Your task to perform on an android device: change the clock display to analog Image 0: 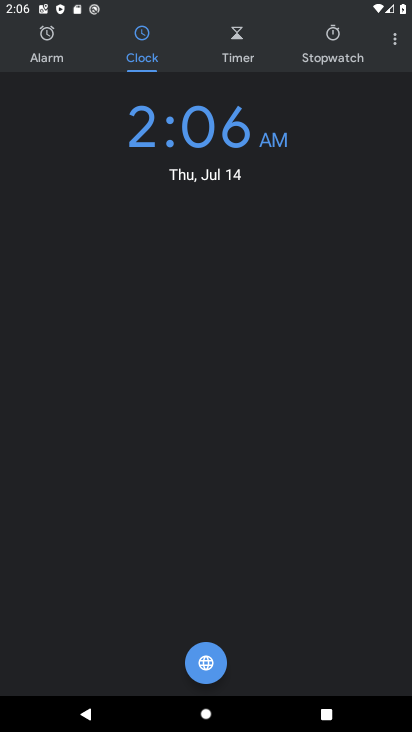
Step 0: press home button
Your task to perform on an android device: change the clock display to analog Image 1: 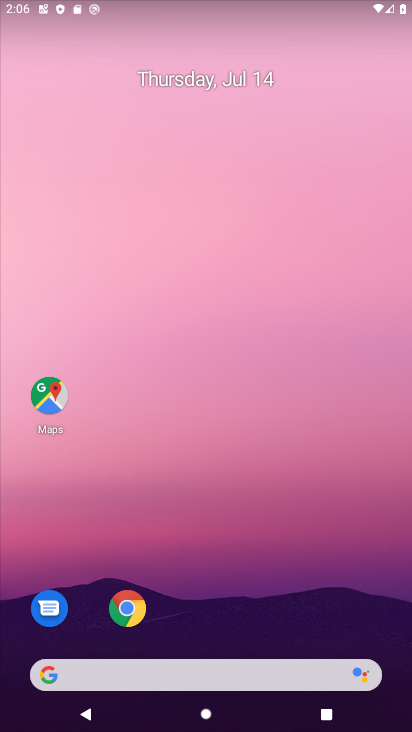
Step 1: drag from (208, 644) to (251, 218)
Your task to perform on an android device: change the clock display to analog Image 2: 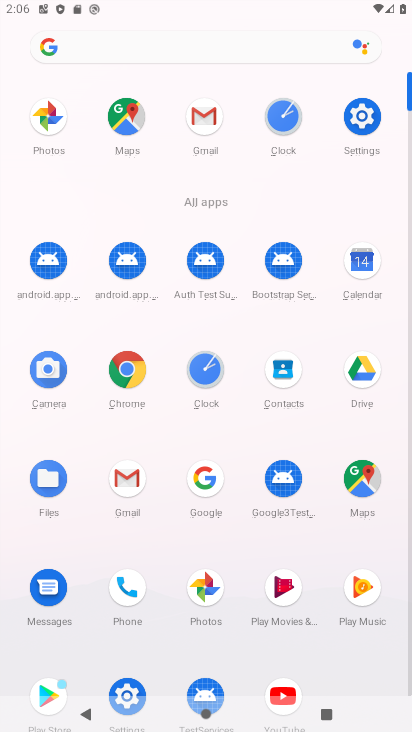
Step 2: click (280, 119)
Your task to perform on an android device: change the clock display to analog Image 3: 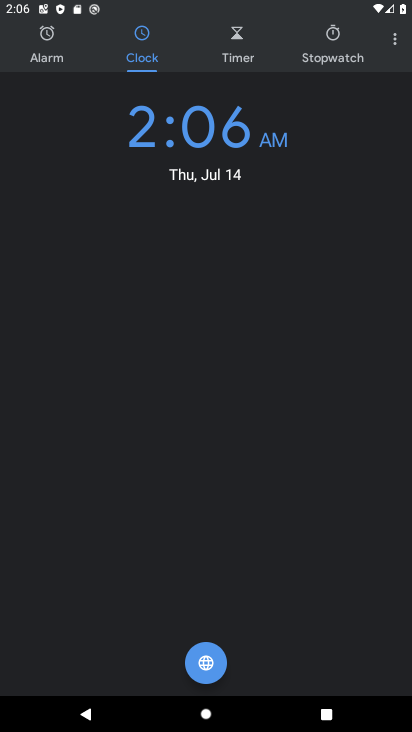
Step 3: click (393, 36)
Your task to perform on an android device: change the clock display to analog Image 4: 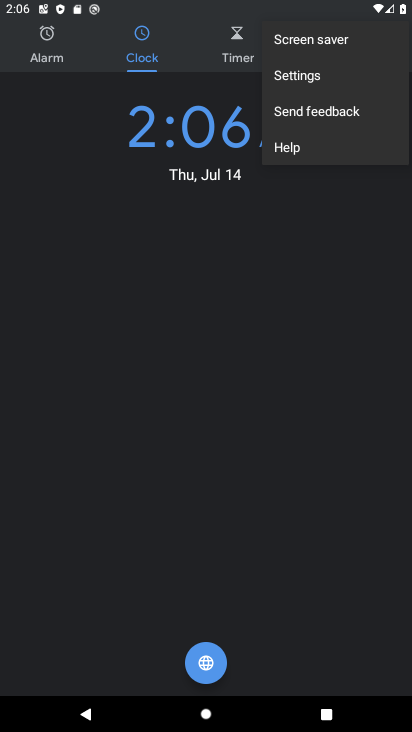
Step 4: click (316, 77)
Your task to perform on an android device: change the clock display to analog Image 5: 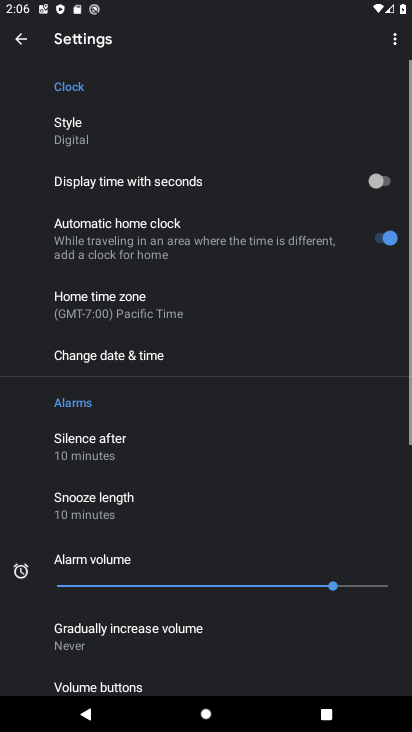
Step 5: click (65, 138)
Your task to perform on an android device: change the clock display to analog Image 6: 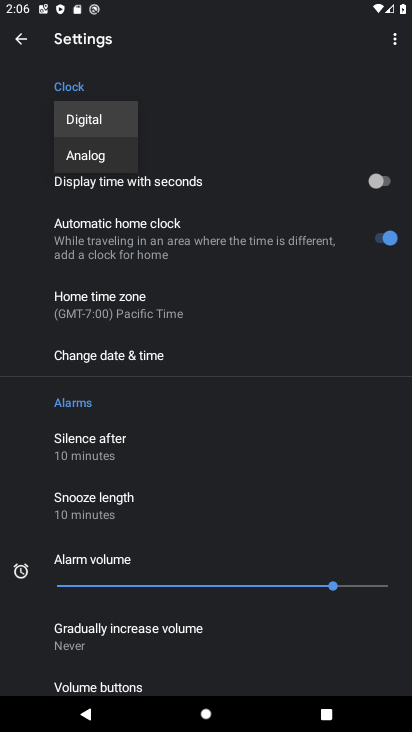
Step 6: click (84, 160)
Your task to perform on an android device: change the clock display to analog Image 7: 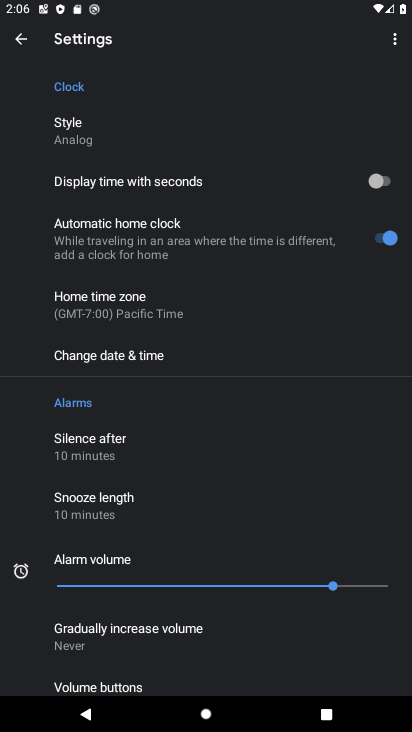
Step 7: task complete